Your task to perform on an android device: open app "DoorDash - Food Delivery" (install if not already installed) and go to login screen Image 0: 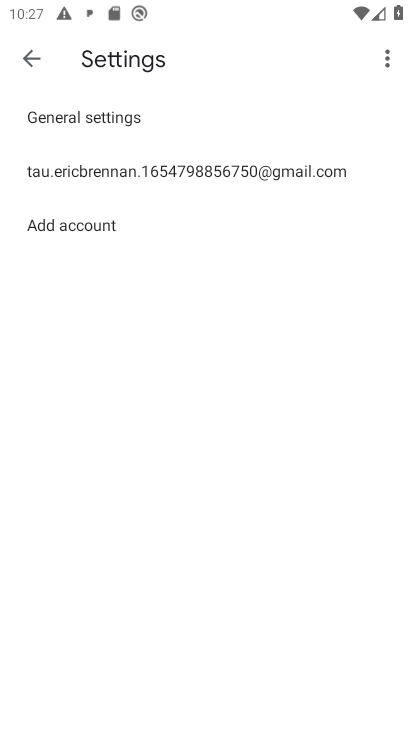
Step 0: press home button
Your task to perform on an android device: open app "DoorDash - Food Delivery" (install if not already installed) and go to login screen Image 1: 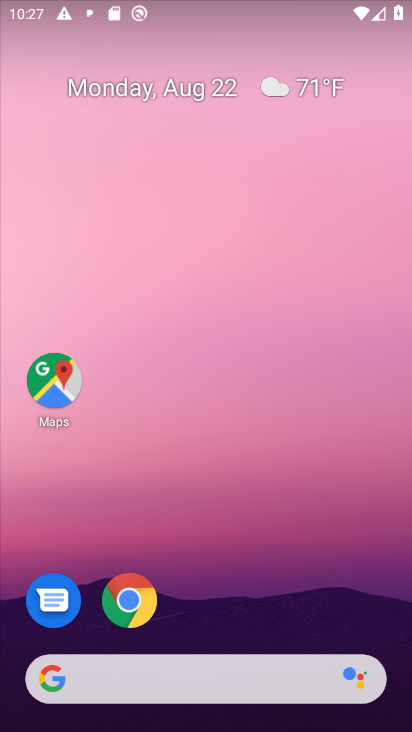
Step 1: drag from (222, 581) to (256, 148)
Your task to perform on an android device: open app "DoorDash - Food Delivery" (install if not already installed) and go to login screen Image 2: 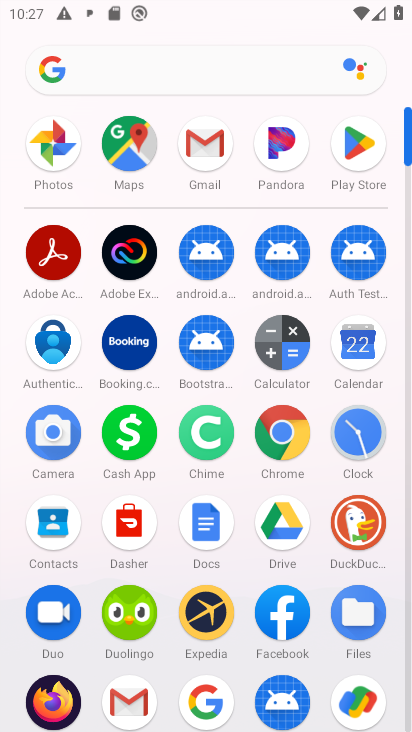
Step 2: click (356, 144)
Your task to perform on an android device: open app "DoorDash - Food Delivery" (install if not already installed) and go to login screen Image 3: 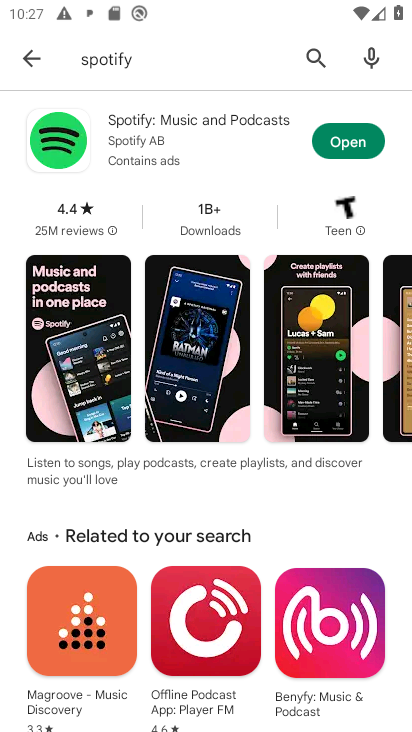
Step 3: click (310, 43)
Your task to perform on an android device: open app "DoorDash - Food Delivery" (install if not already installed) and go to login screen Image 4: 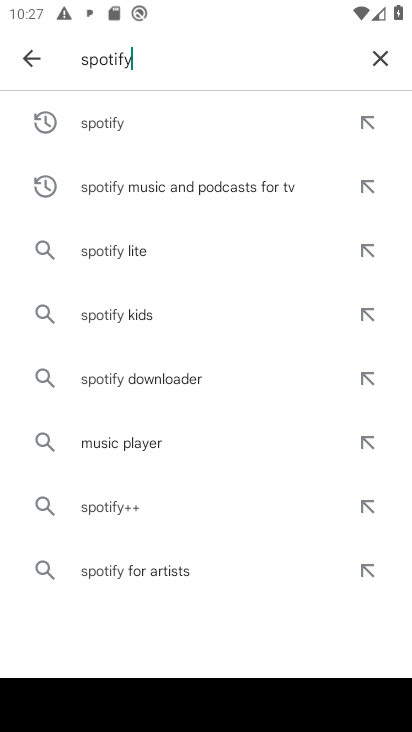
Step 4: click (374, 58)
Your task to perform on an android device: open app "DoorDash - Food Delivery" (install if not already installed) and go to login screen Image 5: 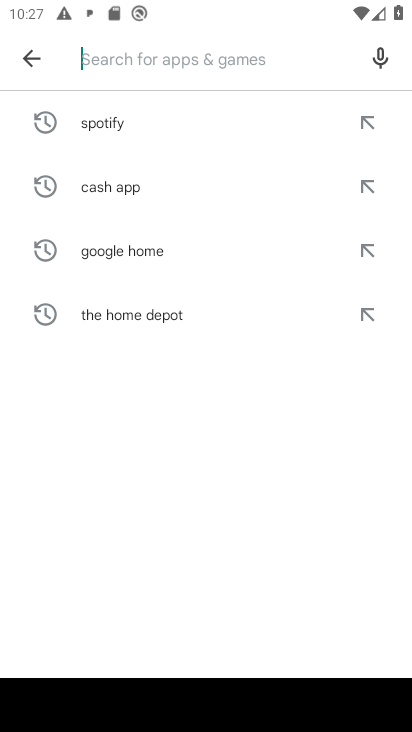
Step 5: type "DoorDash - Food Delivery"
Your task to perform on an android device: open app "DoorDash - Food Delivery" (install if not already installed) and go to login screen Image 6: 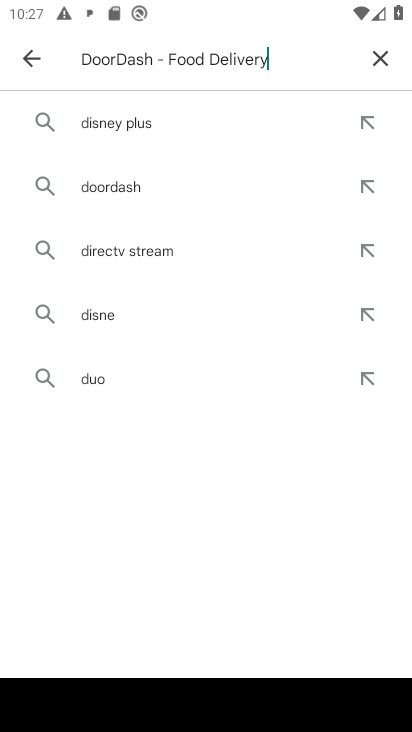
Step 6: type ""
Your task to perform on an android device: open app "DoorDash - Food Delivery" (install if not already installed) and go to login screen Image 7: 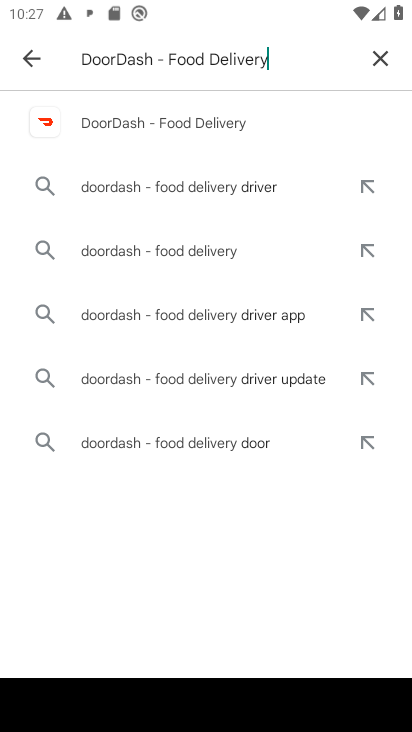
Step 7: click (144, 110)
Your task to perform on an android device: open app "DoorDash - Food Delivery" (install if not already installed) and go to login screen Image 8: 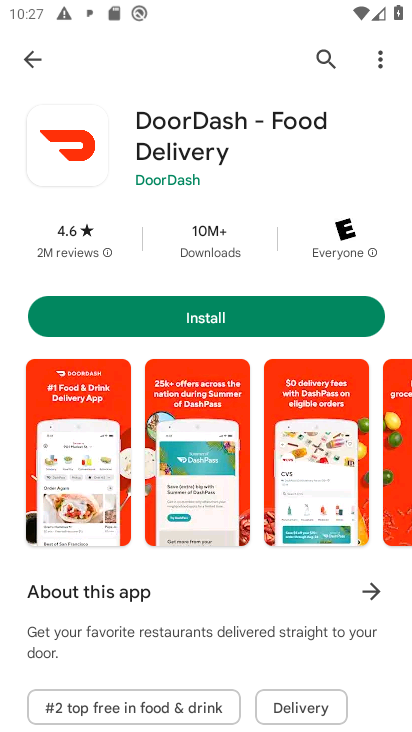
Step 8: click (258, 308)
Your task to perform on an android device: open app "DoorDash - Food Delivery" (install if not already installed) and go to login screen Image 9: 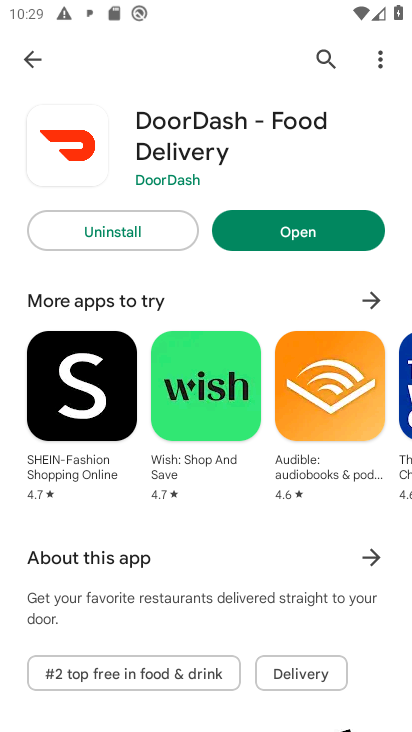
Step 9: click (297, 215)
Your task to perform on an android device: open app "DoorDash - Food Delivery" (install if not already installed) and go to login screen Image 10: 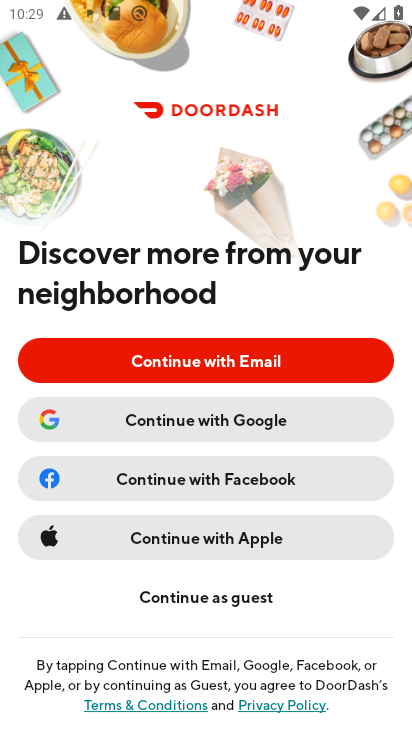
Step 10: task complete